Your task to perform on an android device: Go to Yahoo.com Image 0: 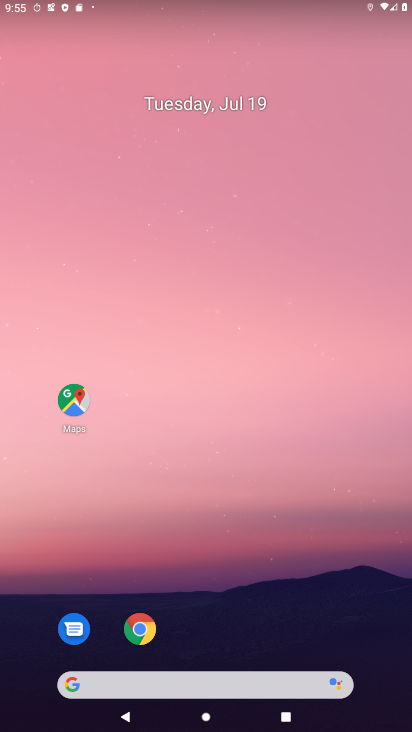
Step 0: click (138, 628)
Your task to perform on an android device: Go to Yahoo.com Image 1: 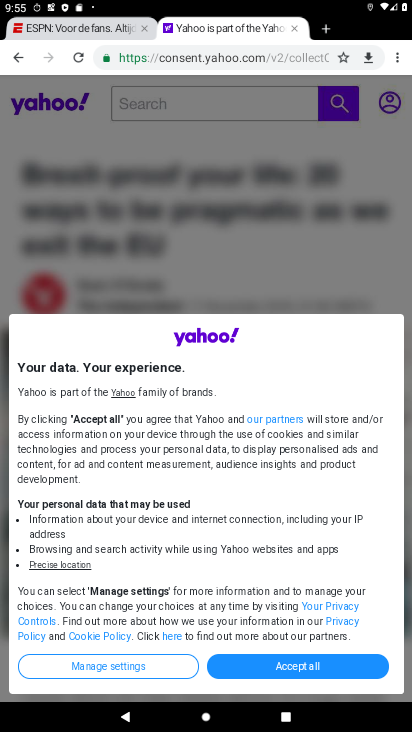
Step 1: click (249, 663)
Your task to perform on an android device: Go to Yahoo.com Image 2: 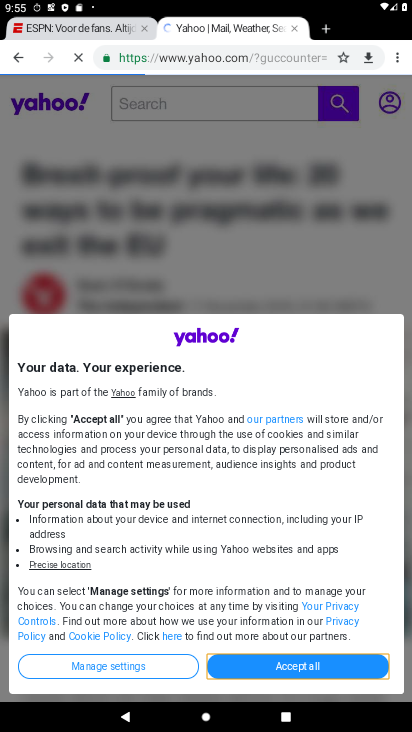
Step 2: click (57, 101)
Your task to perform on an android device: Go to Yahoo.com Image 3: 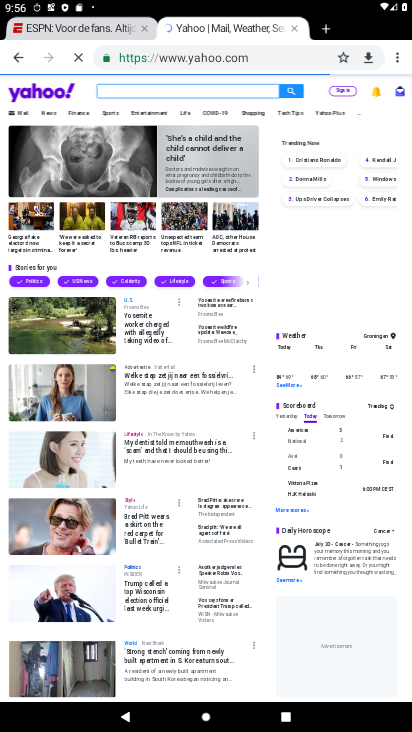
Step 3: task complete